Your task to perform on an android device: Search for Mexican restaurants on Maps Image 0: 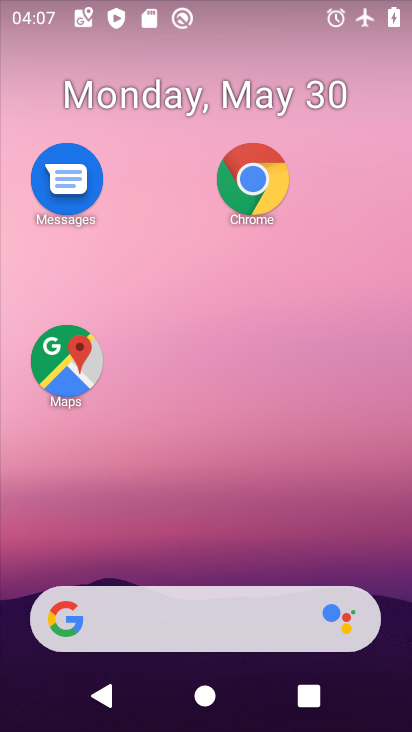
Step 0: click (47, 360)
Your task to perform on an android device: Search for Mexican restaurants on Maps Image 1: 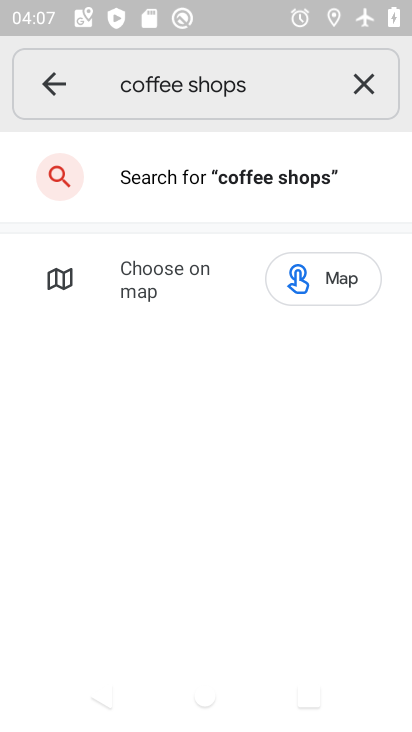
Step 1: click (371, 87)
Your task to perform on an android device: Search for Mexican restaurants on Maps Image 2: 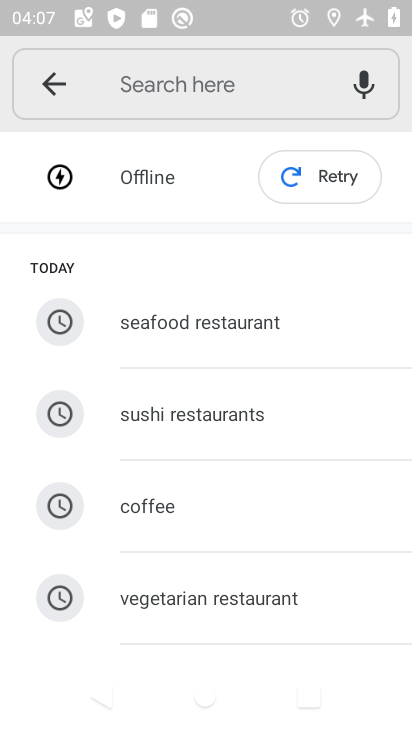
Step 2: press back button
Your task to perform on an android device: Search for Mexican restaurants on Maps Image 3: 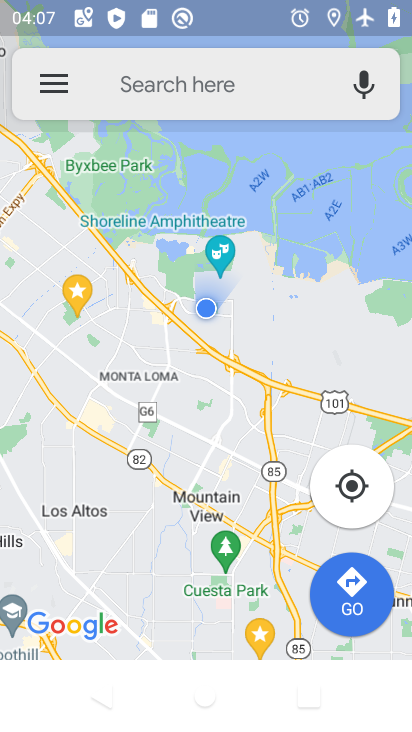
Step 3: press back button
Your task to perform on an android device: Search for Mexican restaurants on Maps Image 4: 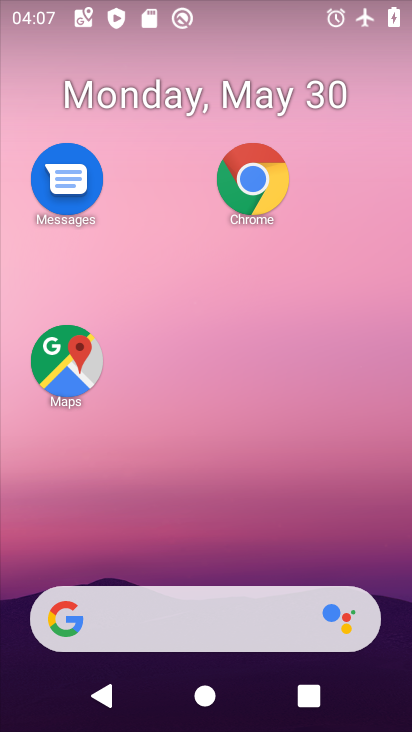
Step 4: drag from (206, 521) to (70, 5)
Your task to perform on an android device: Search for Mexican restaurants on Maps Image 5: 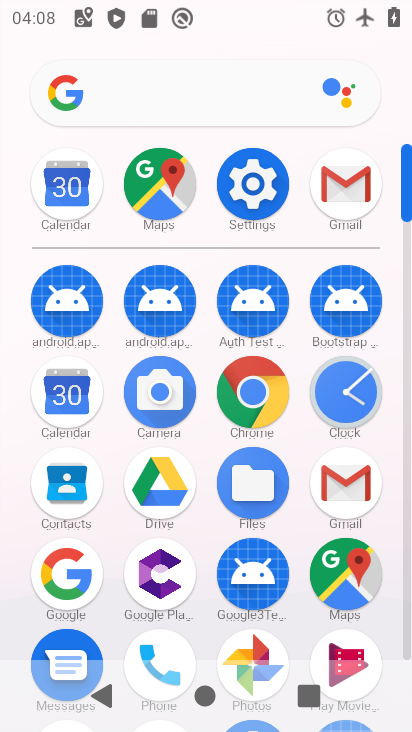
Step 5: click (352, 590)
Your task to perform on an android device: Search for Mexican restaurants on Maps Image 6: 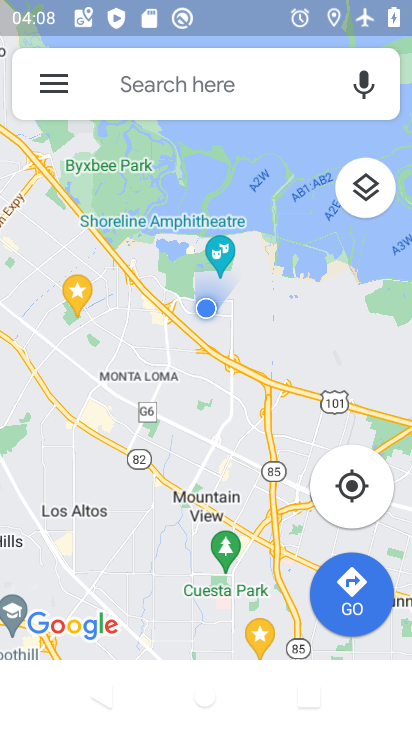
Step 6: click (179, 94)
Your task to perform on an android device: Search for Mexican restaurants on Maps Image 7: 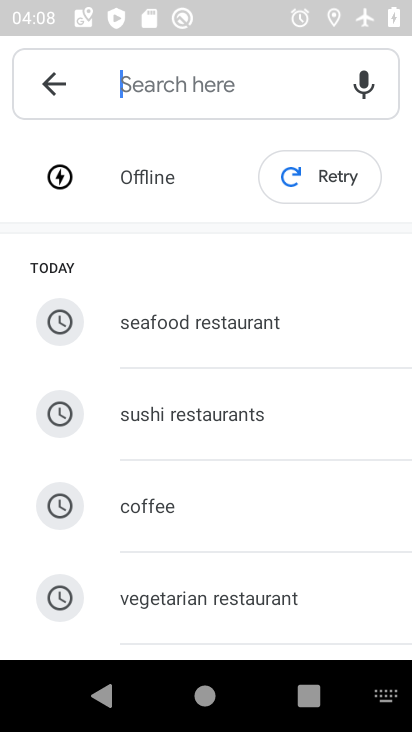
Step 7: drag from (188, 611) to (221, 258)
Your task to perform on an android device: Search for Mexican restaurants on Maps Image 8: 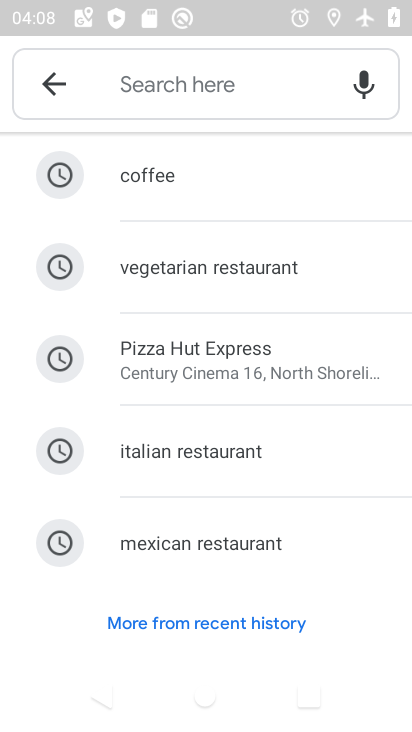
Step 8: click (168, 544)
Your task to perform on an android device: Search for Mexican restaurants on Maps Image 9: 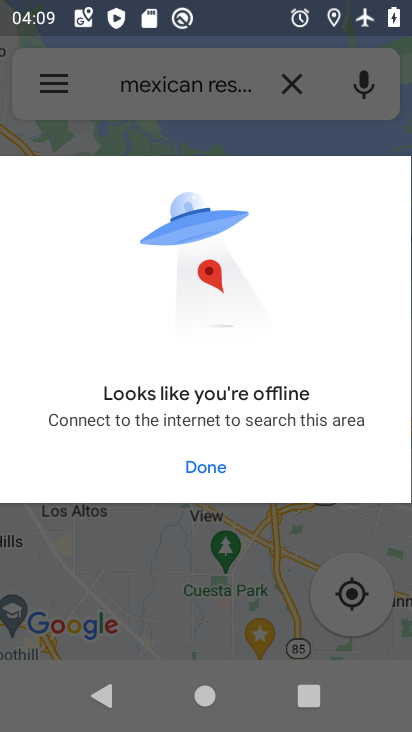
Step 9: click (207, 479)
Your task to perform on an android device: Search for Mexican restaurants on Maps Image 10: 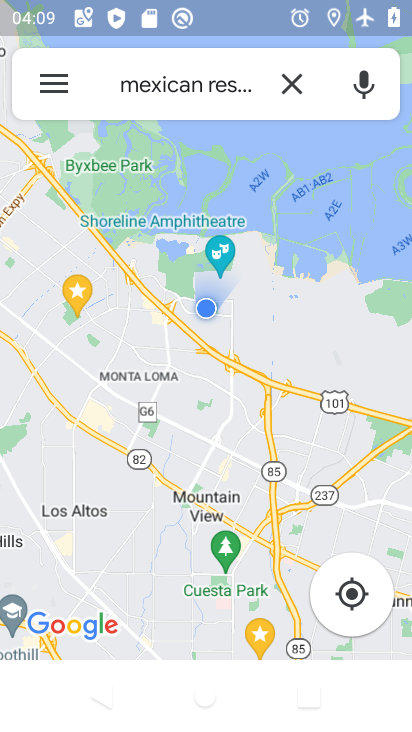
Step 10: task complete